Your task to perform on an android device: set the stopwatch Image 0: 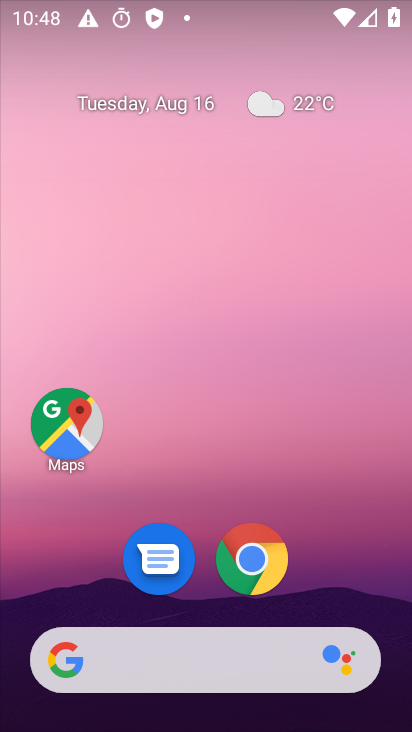
Step 0: drag from (180, 589) to (213, 144)
Your task to perform on an android device: set the stopwatch Image 1: 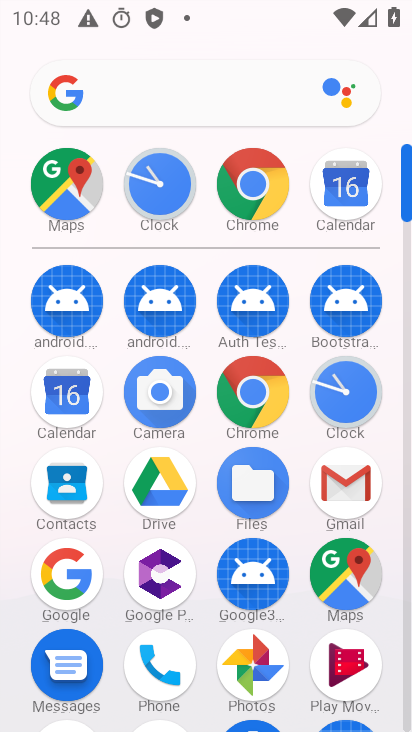
Step 1: click (159, 194)
Your task to perform on an android device: set the stopwatch Image 2: 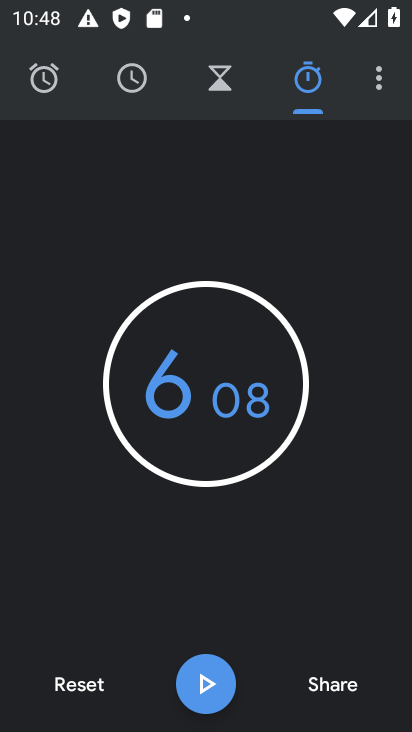
Step 2: click (90, 682)
Your task to perform on an android device: set the stopwatch Image 3: 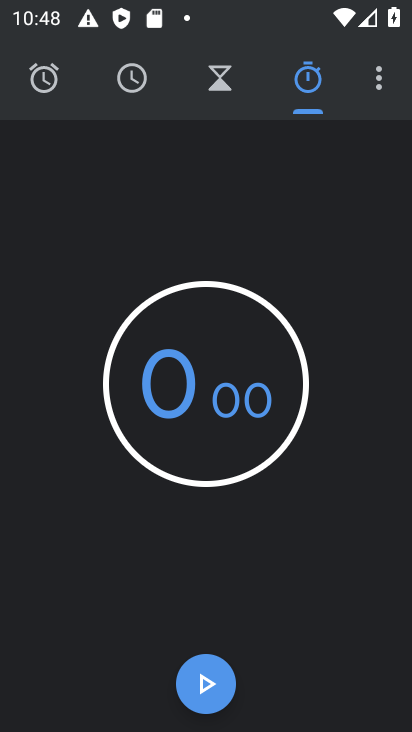
Step 3: click (211, 695)
Your task to perform on an android device: set the stopwatch Image 4: 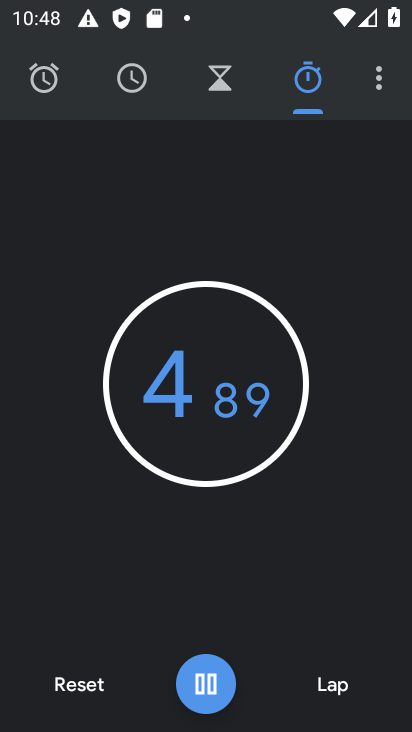
Step 4: click (211, 695)
Your task to perform on an android device: set the stopwatch Image 5: 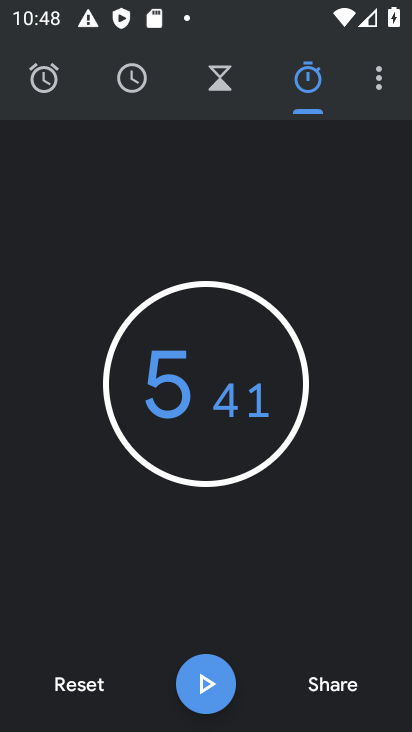
Step 5: task complete